Your task to perform on an android device: Open Google Chrome and click the shortcut for Amazon.com Image 0: 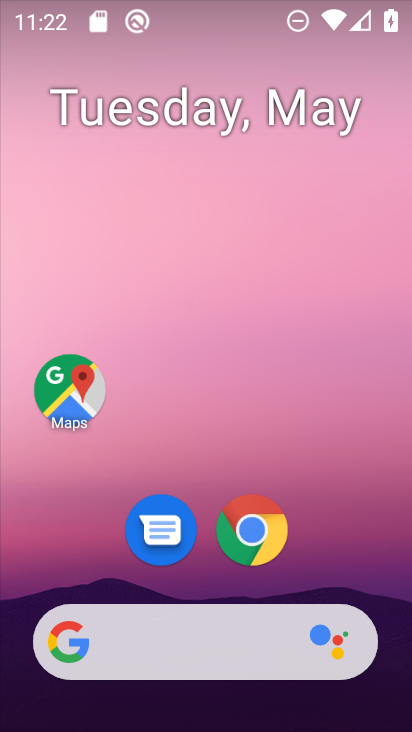
Step 0: drag from (320, 541) to (385, 125)
Your task to perform on an android device: Open Google Chrome and click the shortcut for Amazon.com Image 1: 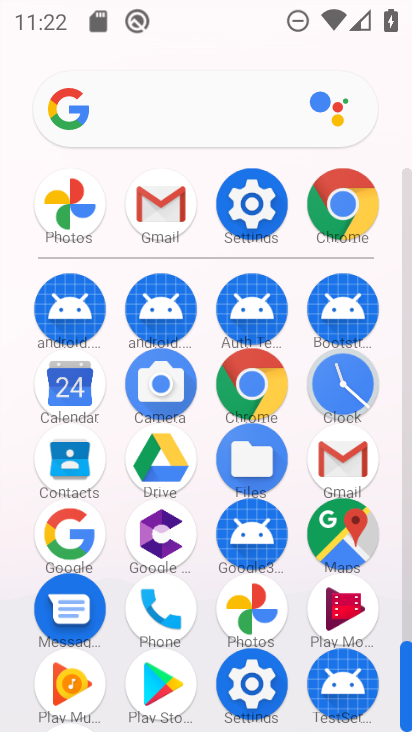
Step 1: click (255, 378)
Your task to perform on an android device: Open Google Chrome and click the shortcut for Amazon.com Image 2: 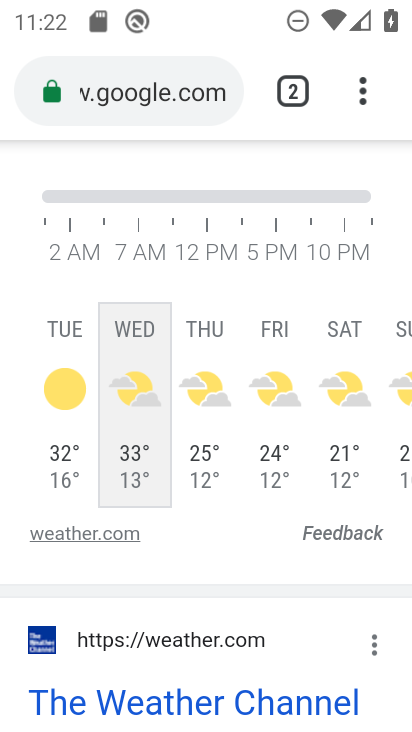
Step 2: click (144, 97)
Your task to perform on an android device: Open Google Chrome and click the shortcut for Amazon.com Image 3: 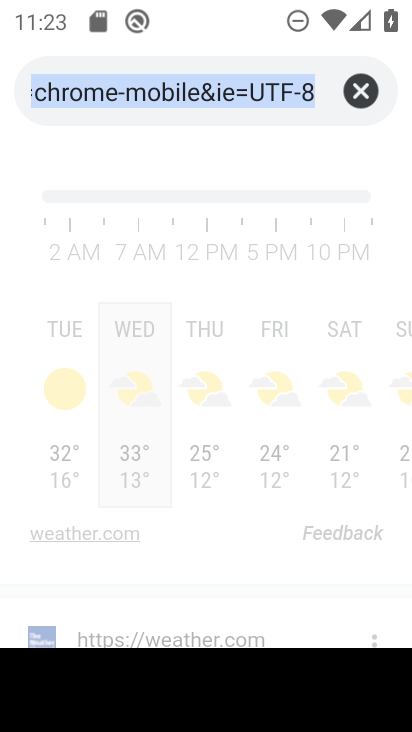
Step 3: click (353, 78)
Your task to perform on an android device: Open Google Chrome and click the shortcut for Amazon.com Image 4: 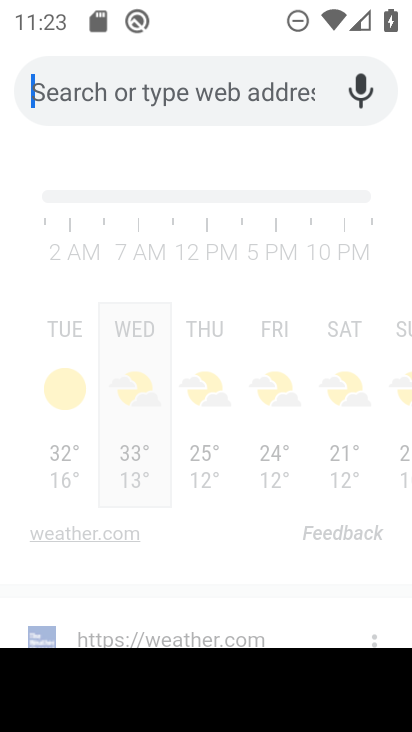
Step 4: type "amazon"
Your task to perform on an android device: Open Google Chrome and click the shortcut for Amazon.com Image 5: 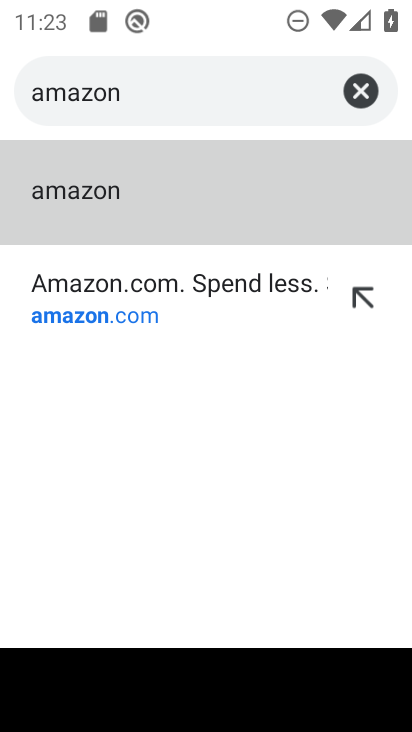
Step 5: click (74, 306)
Your task to perform on an android device: Open Google Chrome and click the shortcut for Amazon.com Image 6: 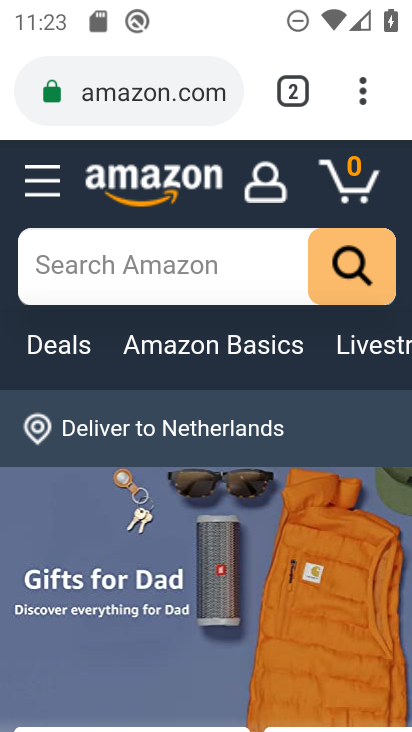
Step 6: task complete